Your task to perform on an android device: Show the shopping cart on newegg. Search for "rayovac triple a" on newegg, select the first entry, and add it to the cart. Image 0: 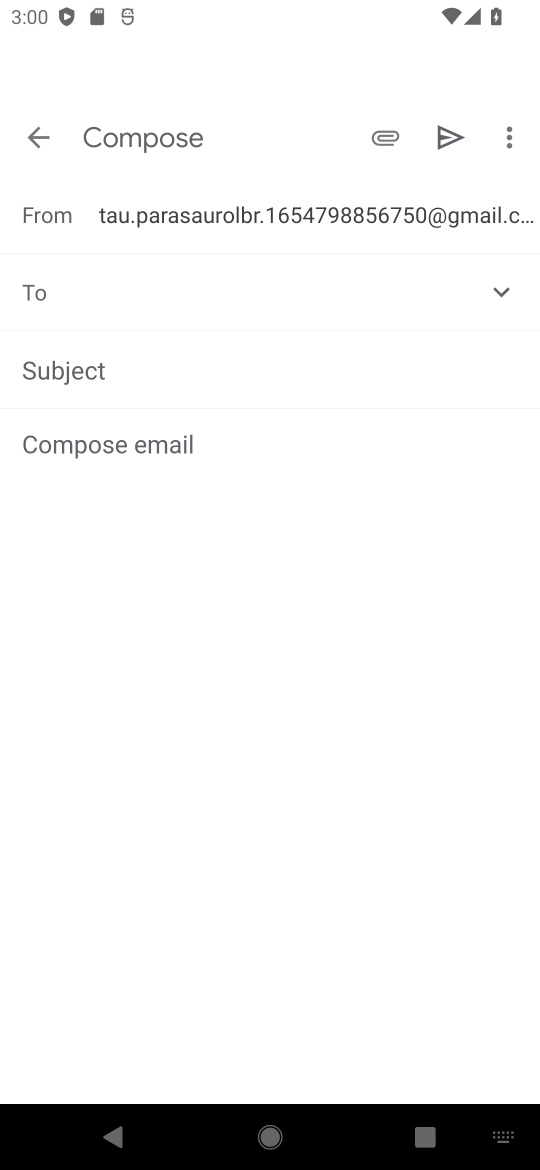
Step 0: press home button
Your task to perform on an android device: Show the shopping cart on newegg. Search for "rayovac triple a" on newegg, select the first entry, and add it to the cart. Image 1: 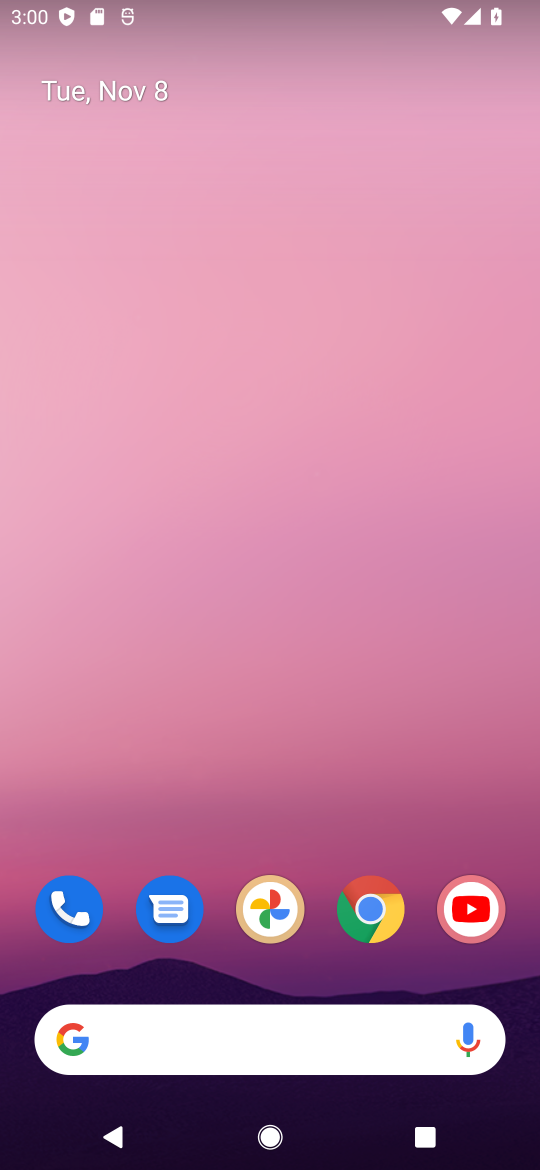
Step 1: click (365, 904)
Your task to perform on an android device: Show the shopping cart on newegg. Search for "rayovac triple a" on newegg, select the first entry, and add it to the cart. Image 2: 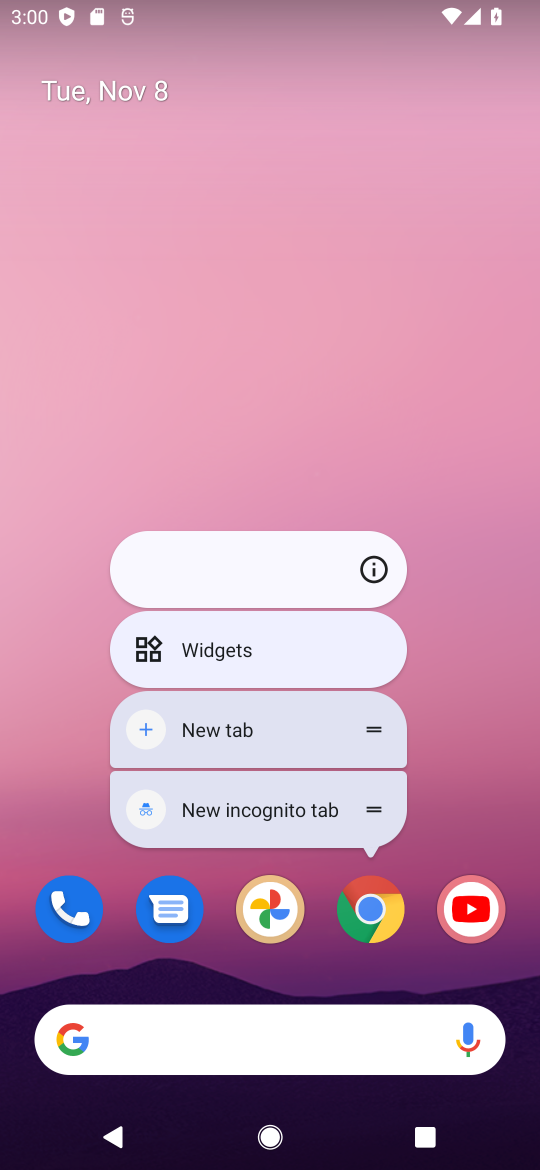
Step 2: click (372, 903)
Your task to perform on an android device: Show the shopping cart on newegg. Search for "rayovac triple a" on newegg, select the first entry, and add it to the cart. Image 3: 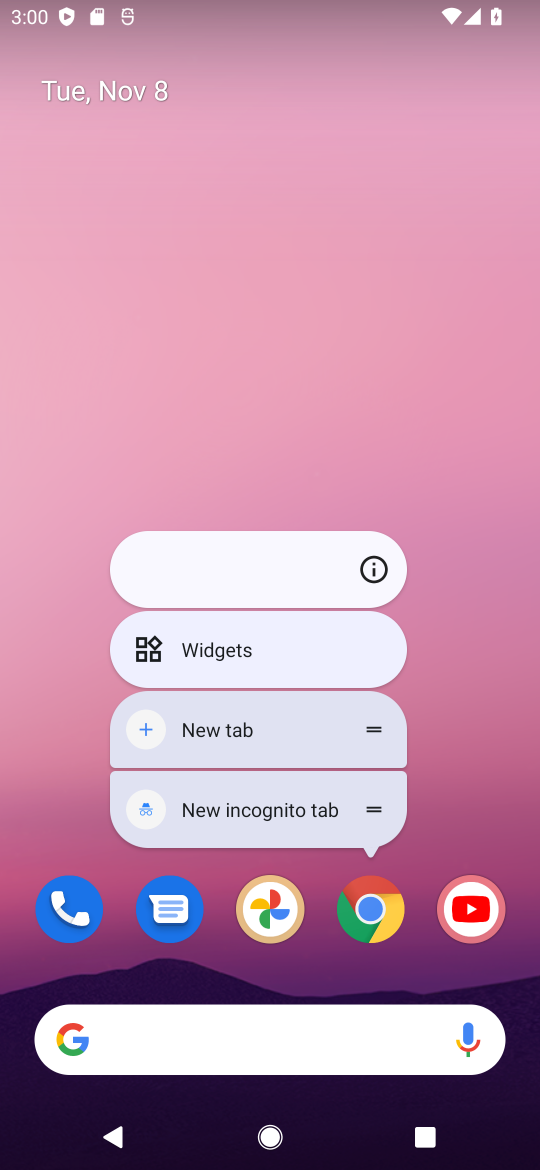
Step 3: click (372, 901)
Your task to perform on an android device: Show the shopping cart on newegg. Search for "rayovac triple a" on newegg, select the first entry, and add it to the cart. Image 4: 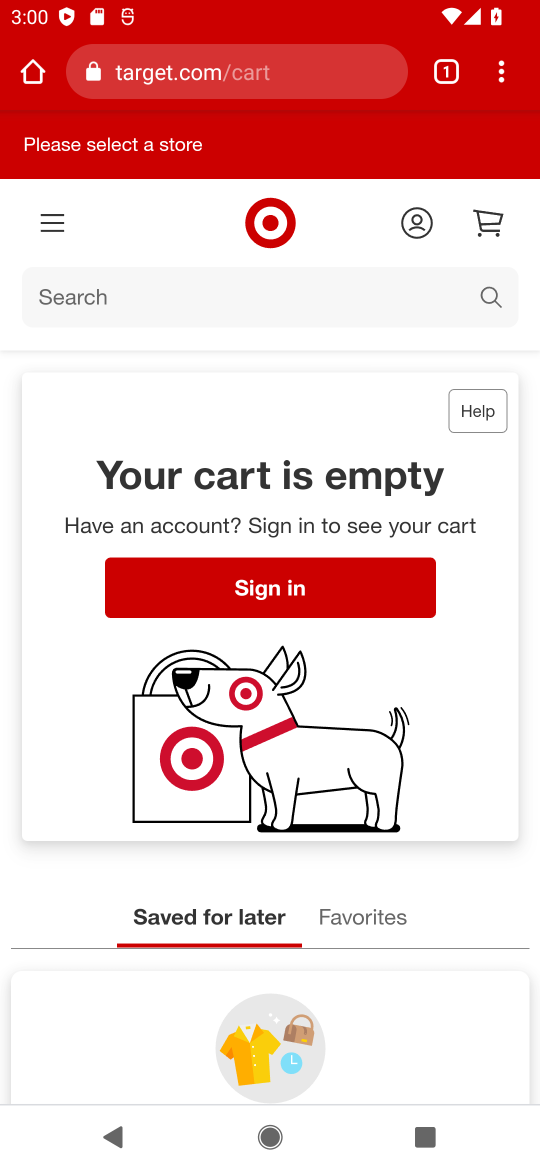
Step 4: click (292, 77)
Your task to perform on an android device: Show the shopping cart on newegg. Search for "rayovac triple a" on newegg, select the first entry, and add it to the cart. Image 5: 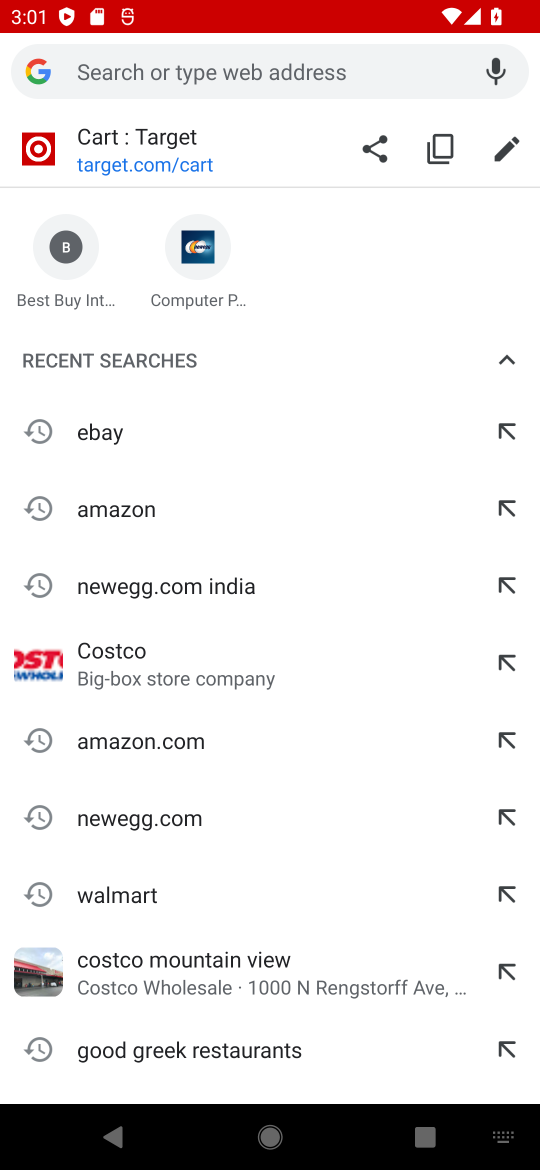
Step 5: press enter
Your task to perform on an android device: Show the shopping cart on newegg. Search for "rayovac triple a" on newegg, select the first entry, and add it to the cart. Image 6: 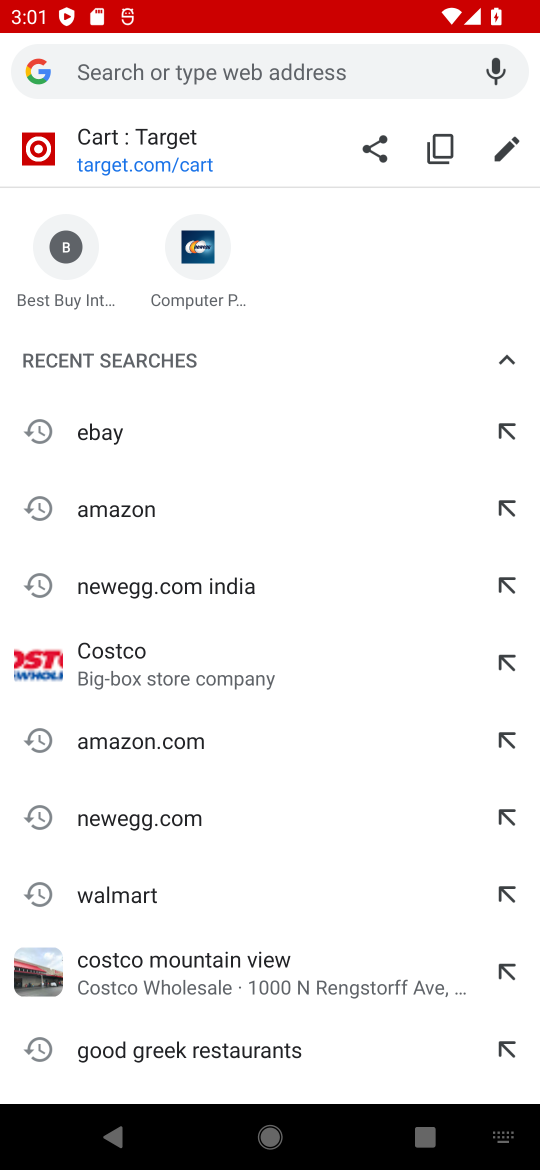
Step 6: type "newegg"
Your task to perform on an android device: Show the shopping cart on newegg. Search for "rayovac triple a" on newegg, select the first entry, and add it to the cart. Image 7: 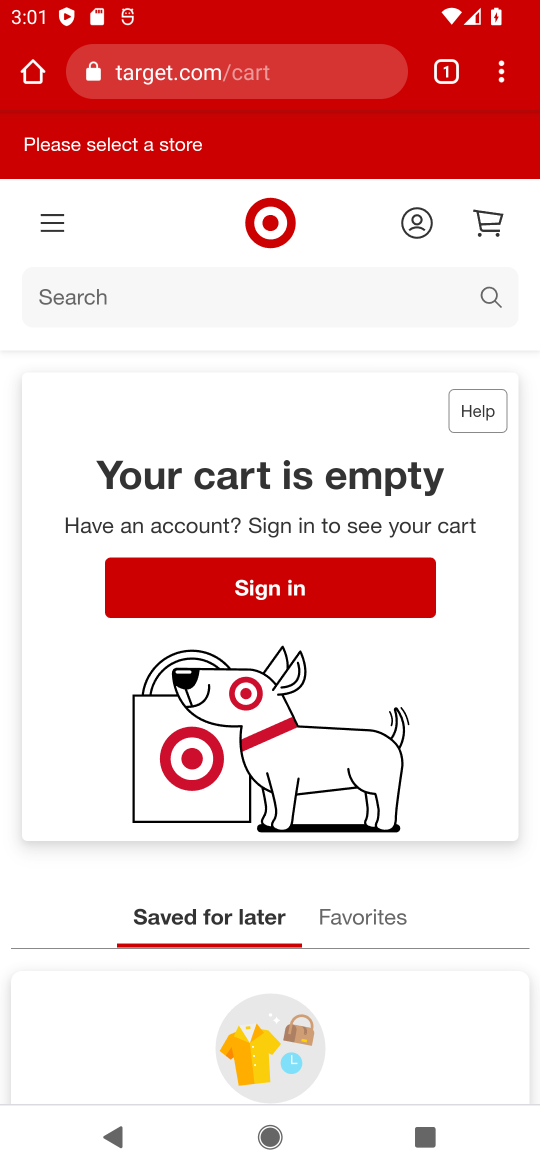
Step 7: click (271, 83)
Your task to perform on an android device: Show the shopping cart on newegg. Search for "rayovac triple a" on newegg, select the first entry, and add it to the cart. Image 8: 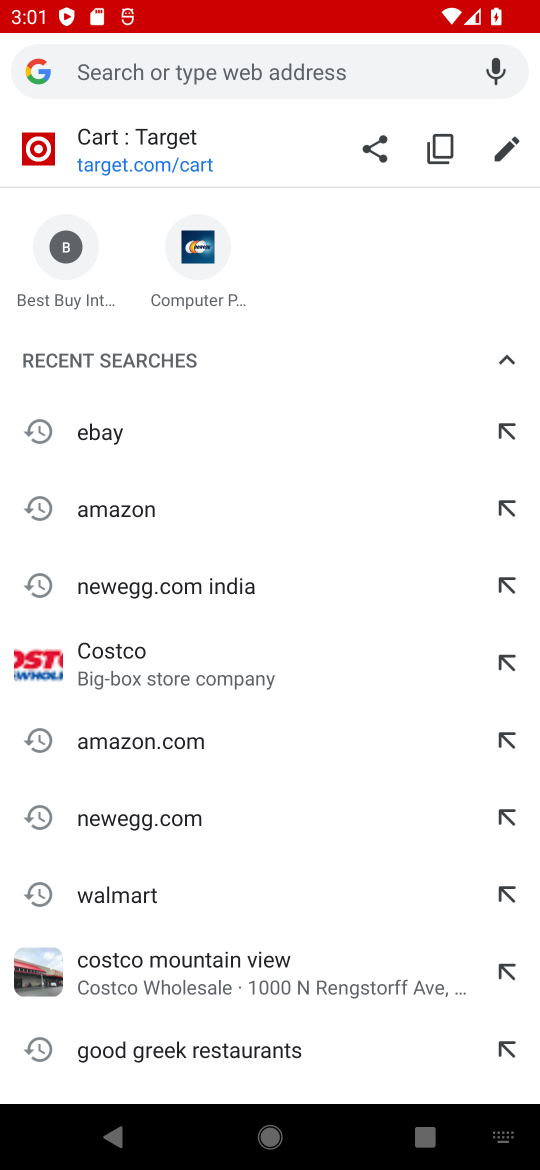
Step 8: type "newegg"
Your task to perform on an android device: Show the shopping cart on newegg. Search for "rayovac triple a" on newegg, select the first entry, and add it to the cart. Image 9: 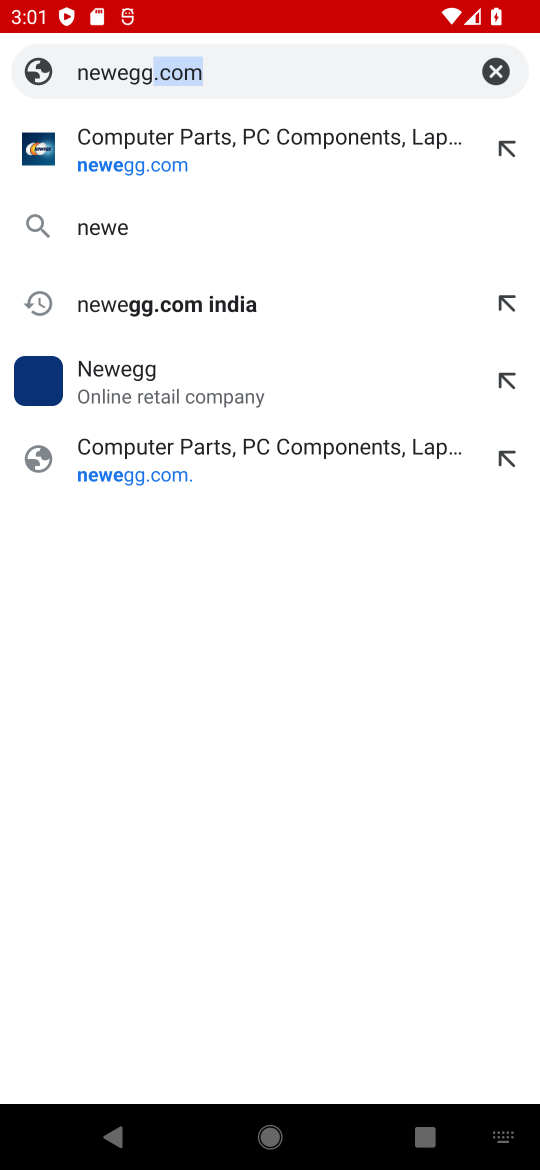
Step 9: press enter
Your task to perform on an android device: Show the shopping cart on newegg. Search for "rayovac triple a" on newegg, select the first entry, and add it to the cart. Image 10: 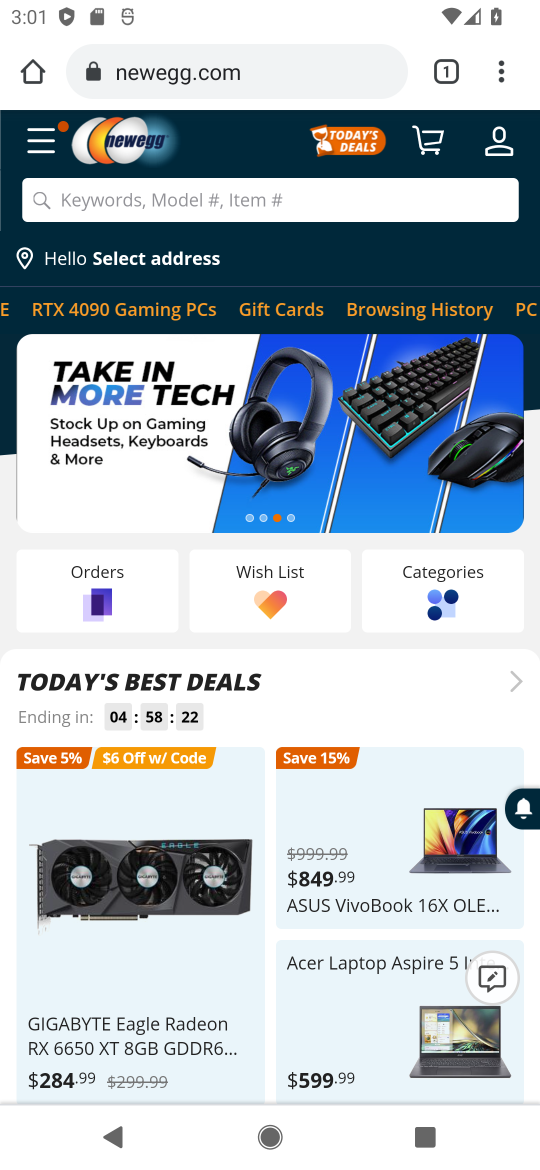
Step 10: click (347, 193)
Your task to perform on an android device: Show the shopping cart on newegg. Search for "rayovac triple a" on newegg, select the first entry, and add it to the cart. Image 11: 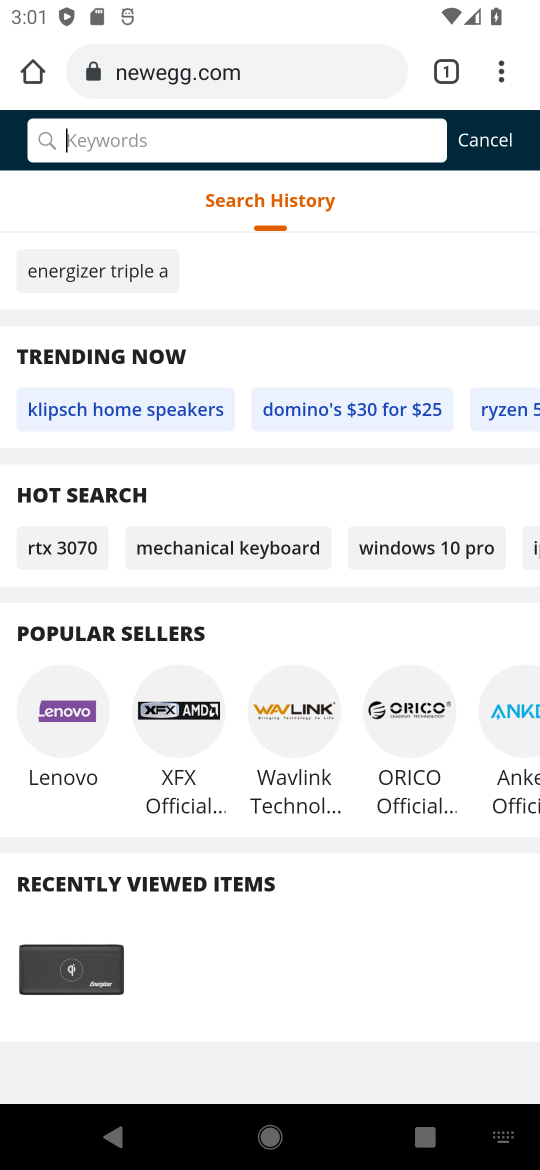
Step 11: type "rayovac triple a"
Your task to perform on an android device: Show the shopping cart on newegg. Search for "rayovac triple a" on newegg, select the first entry, and add it to the cart. Image 12: 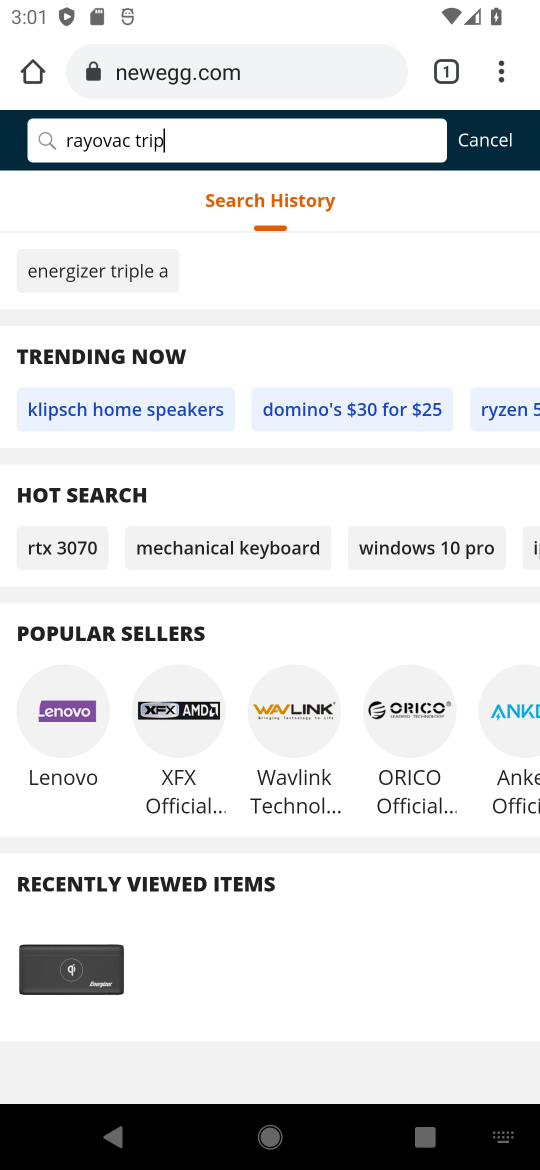
Step 12: press enter
Your task to perform on an android device: Show the shopping cart on newegg. Search for "rayovac triple a" on newegg, select the first entry, and add it to the cart. Image 13: 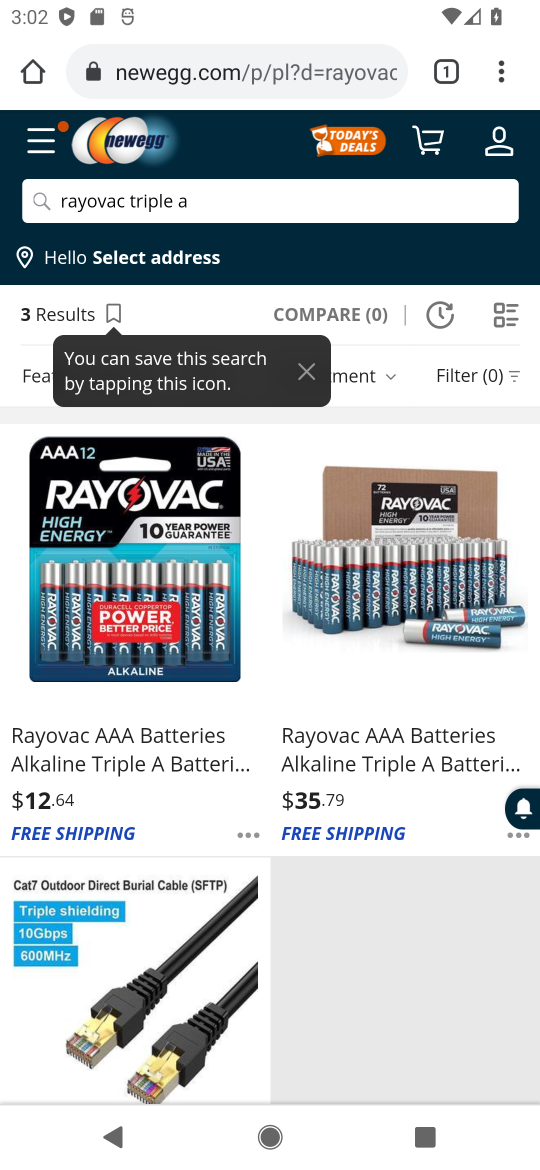
Step 13: click (107, 636)
Your task to perform on an android device: Show the shopping cart on newegg. Search for "rayovac triple a" on newegg, select the first entry, and add it to the cart. Image 14: 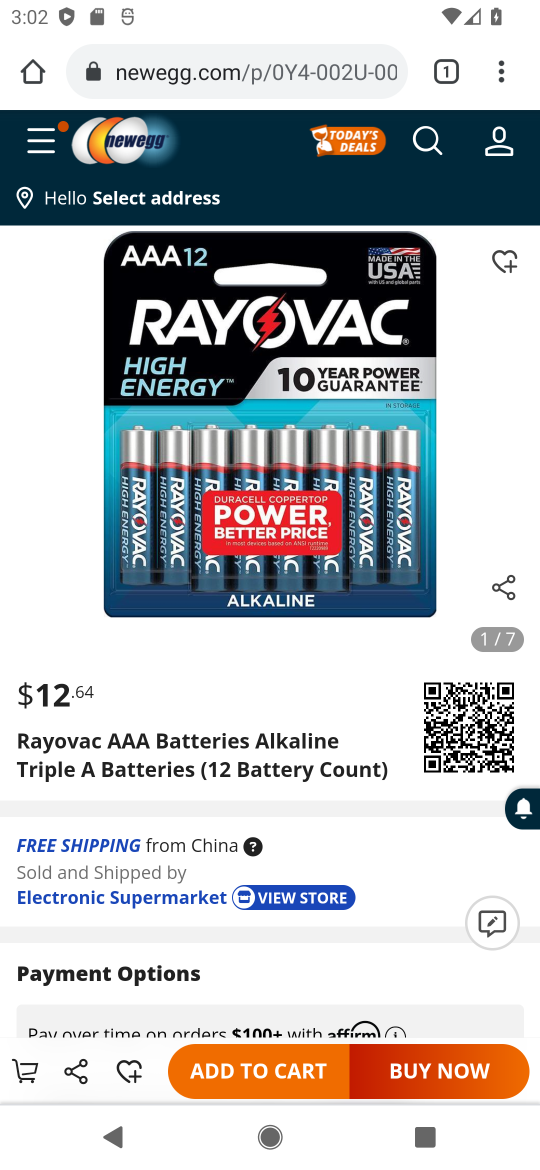
Step 14: click (242, 1070)
Your task to perform on an android device: Show the shopping cart on newegg. Search for "rayovac triple a" on newegg, select the first entry, and add it to the cart. Image 15: 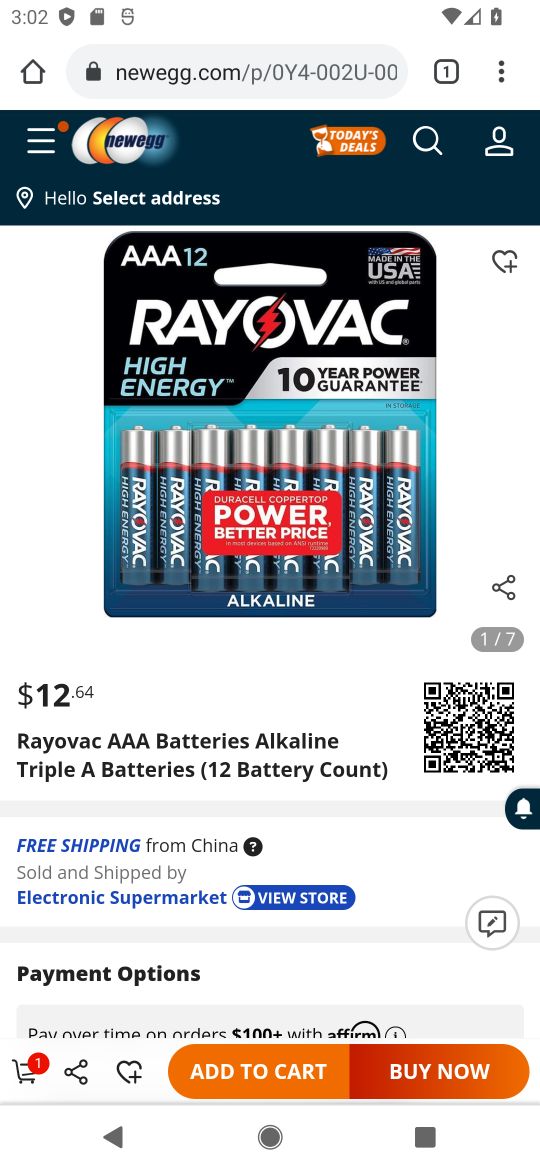
Step 15: click (25, 1077)
Your task to perform on an android device: Show the shopping cart on newegg. Search for "rayovac triple a" on newegg, select the first entry, and add it to the cart. Image 16: 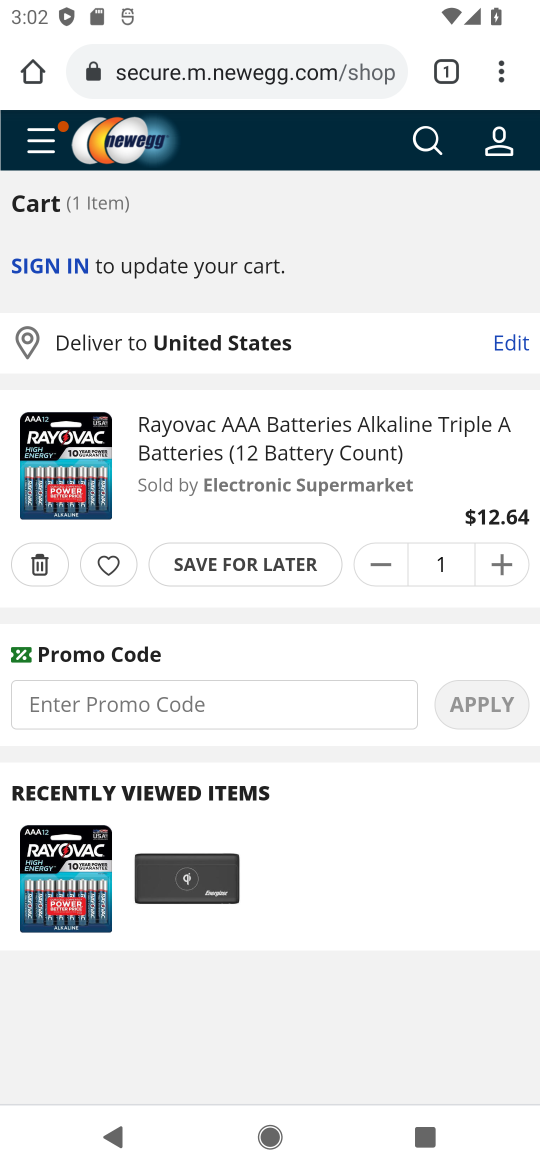
Step 16: task complete